Your task to perform on an android device: open app "LiveIn - Share Your Moment" (install if not already installed), go to login, and select forgot password Image 0: 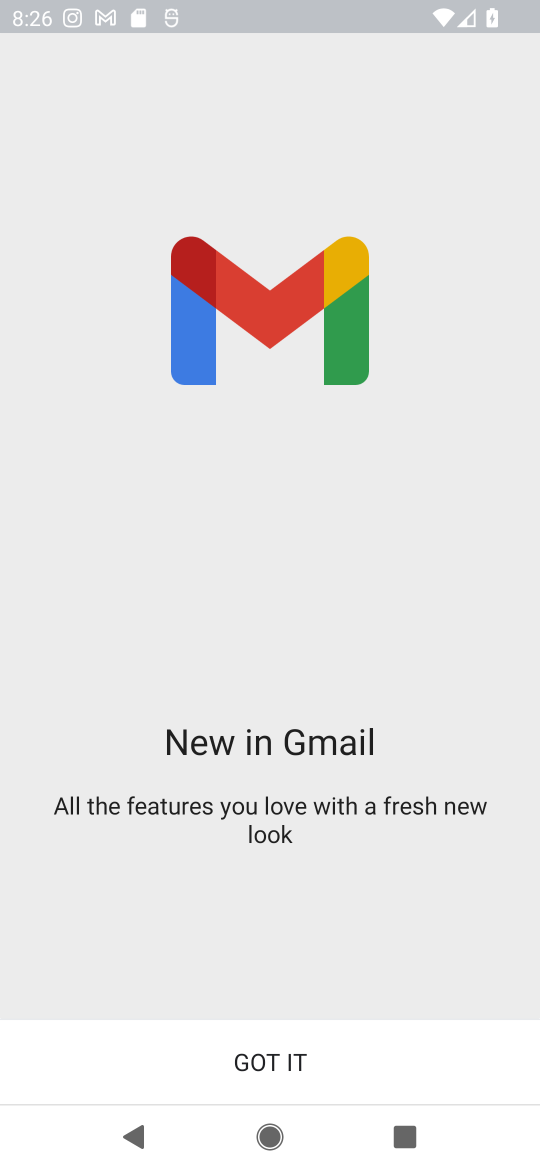
Step 0: press home button
Your task to perform on an android device: open app "LiveIn - Share Your Moment" (install if not already installed), go to login, and select forgot password Image 1: 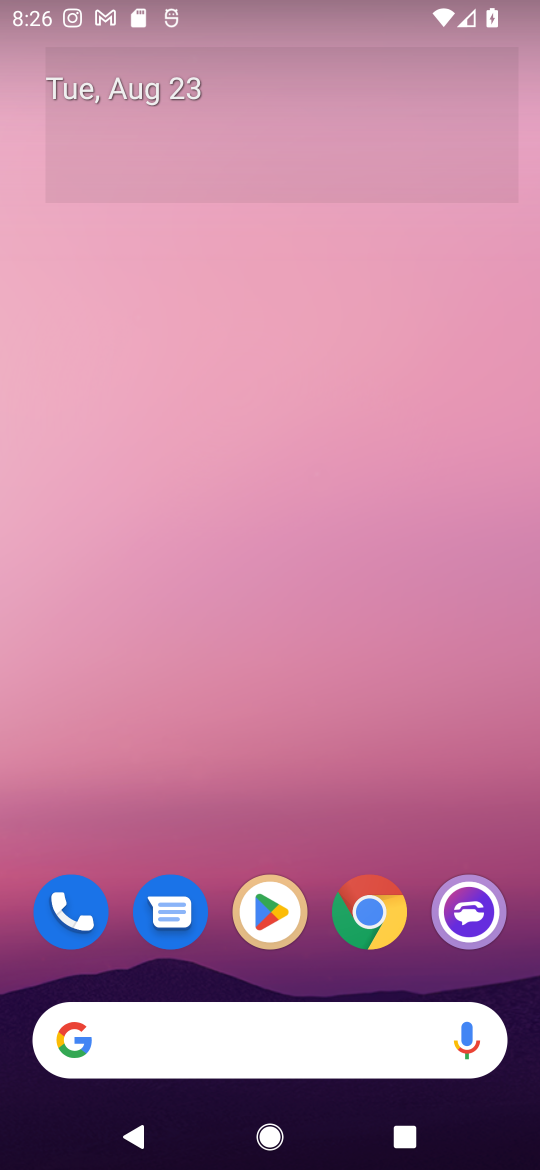
Step 1: click (279, 929)
Your task to perform on an android device: open app "LiveIn - Share Your Moment" (install if not already installed), go to login, and select forgot password Image 2: 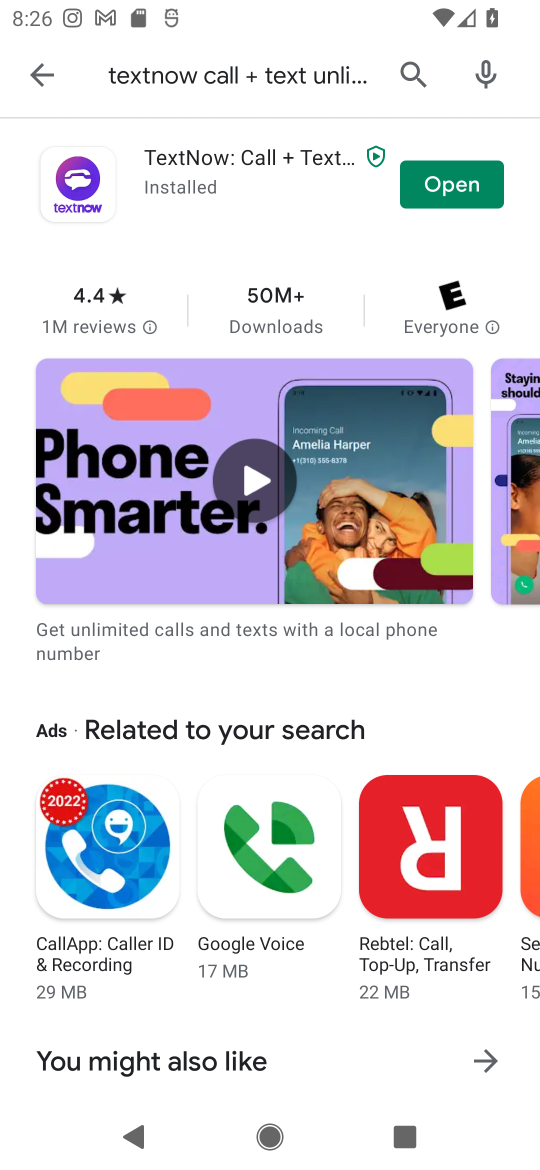
Step 2: click (405, 66)
Your task to perform on an android device: open app "LiveIn - Share Your Moment" (install if not already installed), go to login, and select forgot password Image 3: 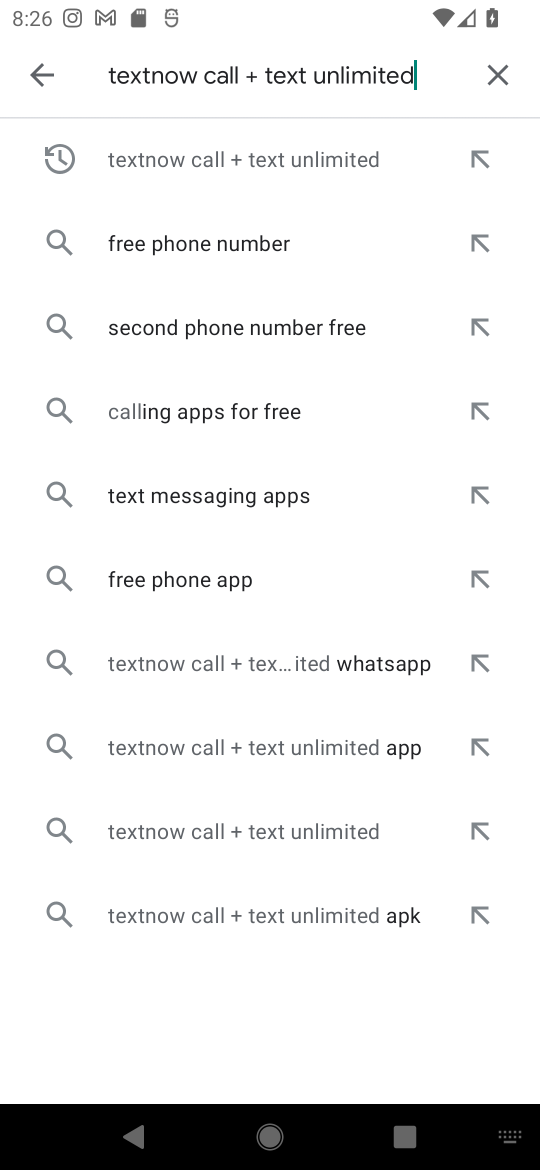
Step 3: click (498, 67)
Your task to perform on an android device: open app "LiveIn - Share Your Moment" (install if not already installed), go to login, and select forgot password Image 4: 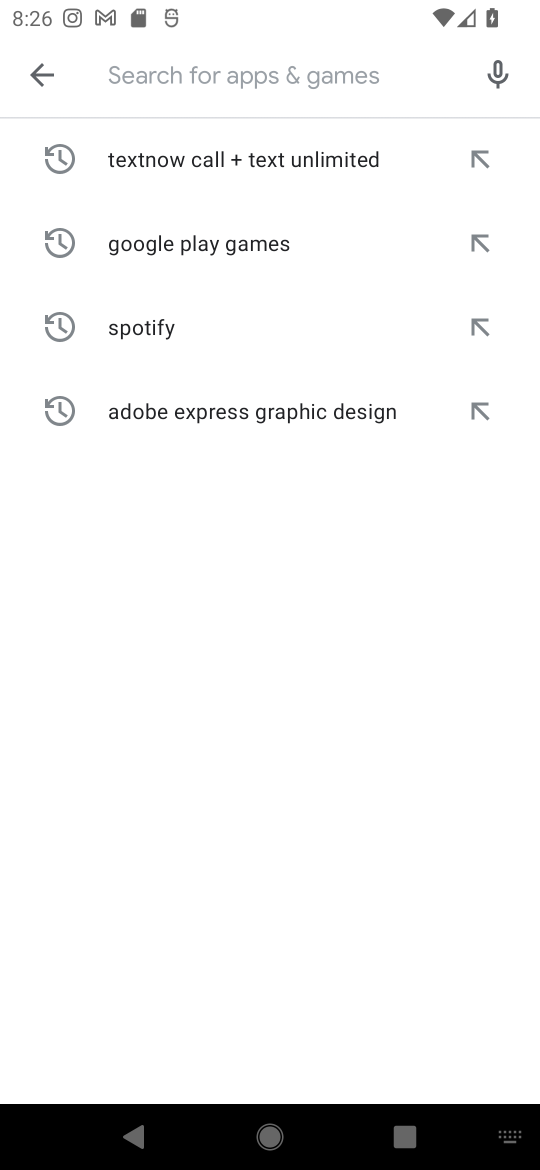
Step 4: type "LiveIn - Share Your Moment"
Your task to perform on an android device: open app "LiveIn - Share Your Moment" (install if not already installed), go to login, and select forgot password Image 5: 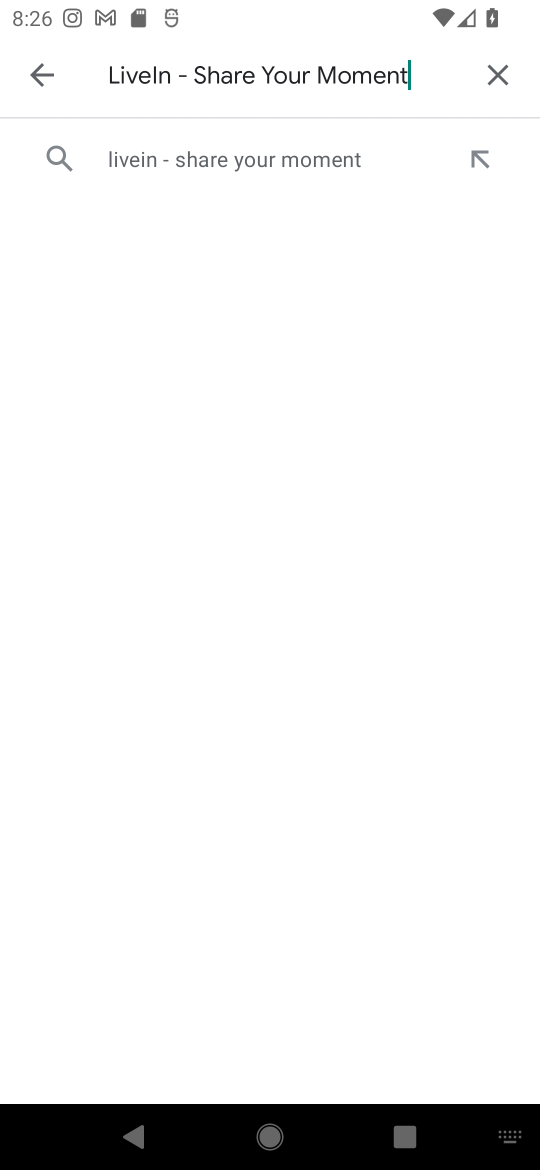
Step 5: click (165, 156)
Your task to perform on an android device: open app "LiveIn - Share Your Moment" (install if not already installed), go to login, and select forgot password Image 6: 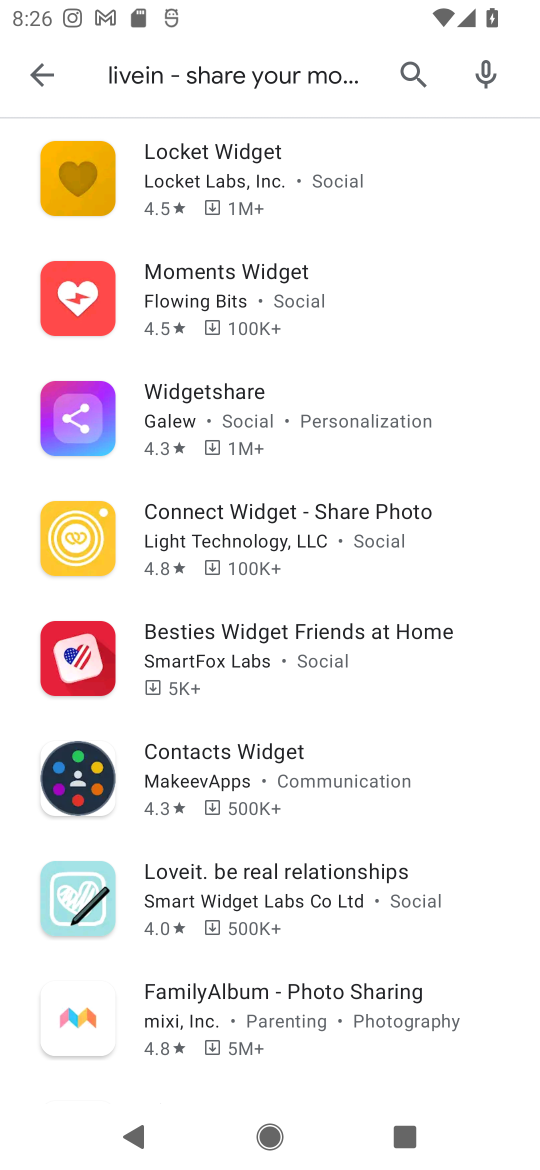
Step 6: task complete